Your task to perform on an android device: Search for "dell xps" on newegg.com, select the first entry, and add it to the cart. Image 0: 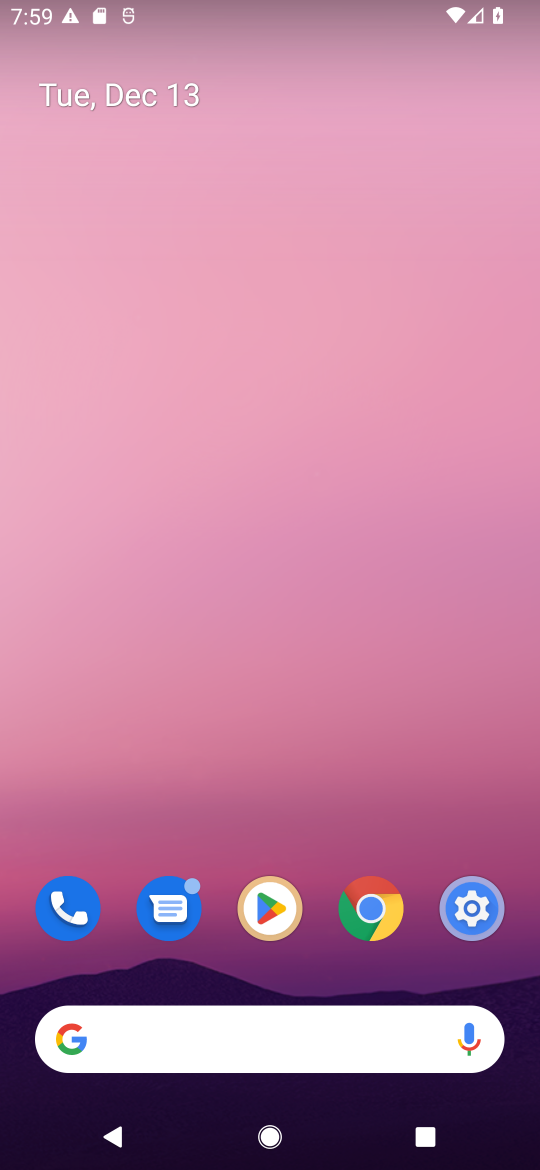
Step 0: press home button
Your task to perform on an android device: Search for "dell xps" on newegg.com, select the first entry, and add it to the cart. Image 1: 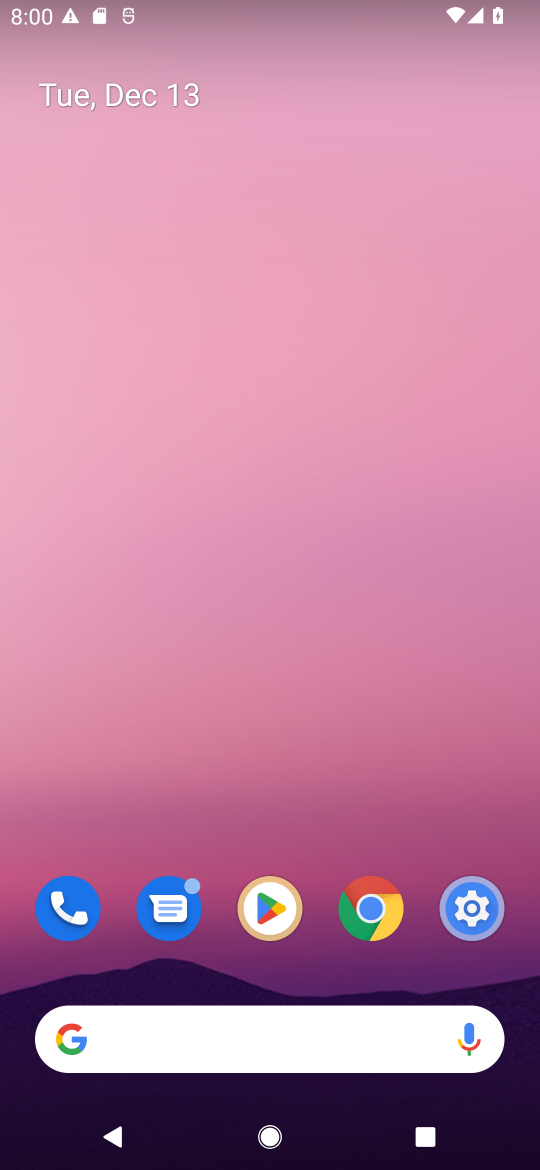
Step 1: click (97, 1045)
Your task to perform on an android device: Search for "dell xps" on newegg.com, select the first entry, and add it to the cart. Image 2: 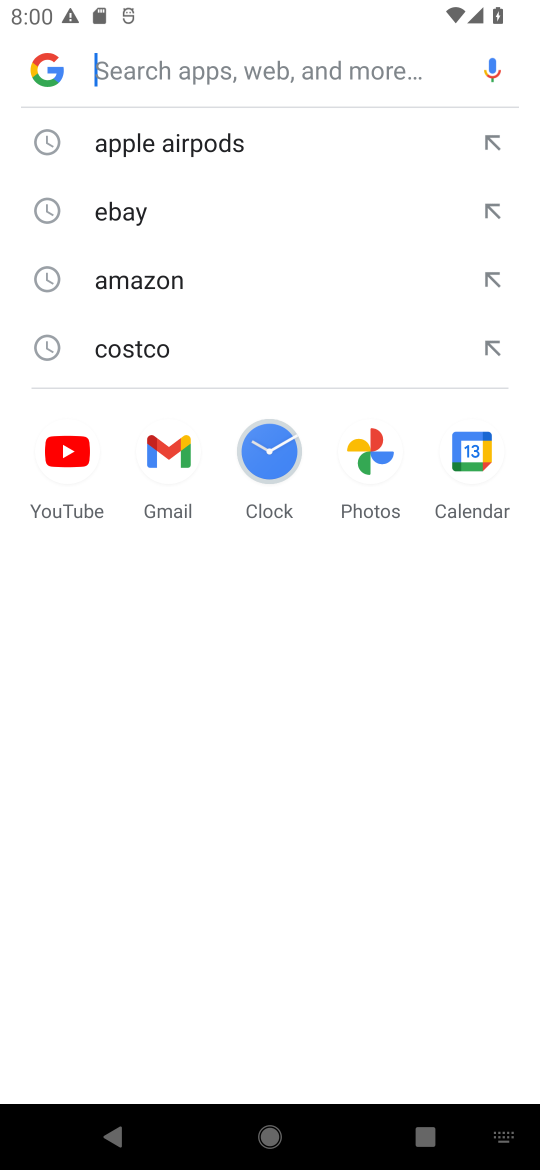
Step 2: type "newegg.com"
Your task to perform on an android device: Search for "dell xps" on newegg.com, select the first entry, and add it to the cart. Image 3: 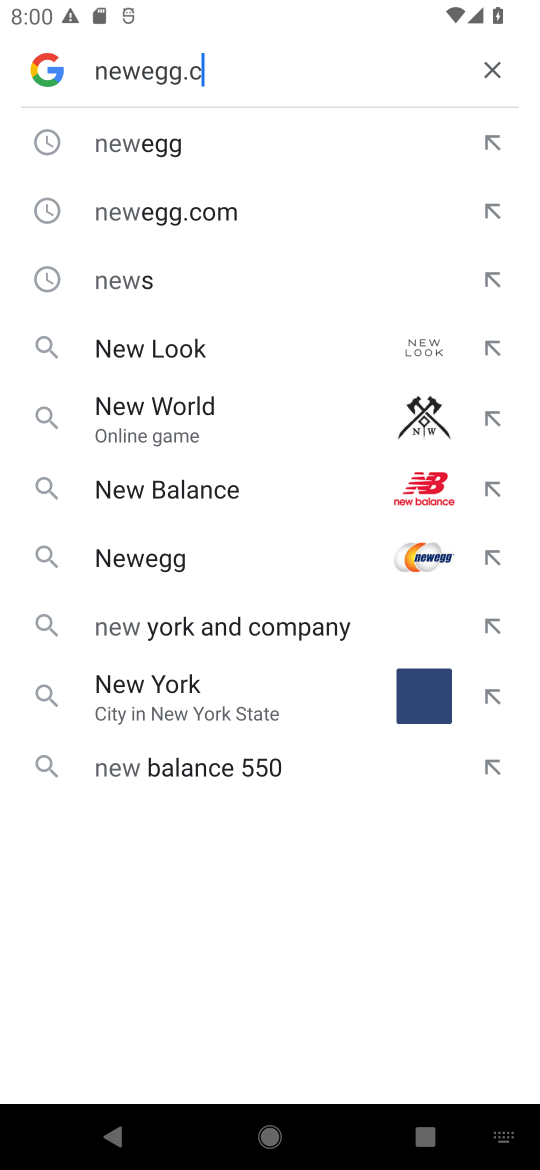
Step 3: press enter
Your task to perform on an android device: Search for "dell xps" on newegg.com, select the first entry, and add it to the cart. Image 4: 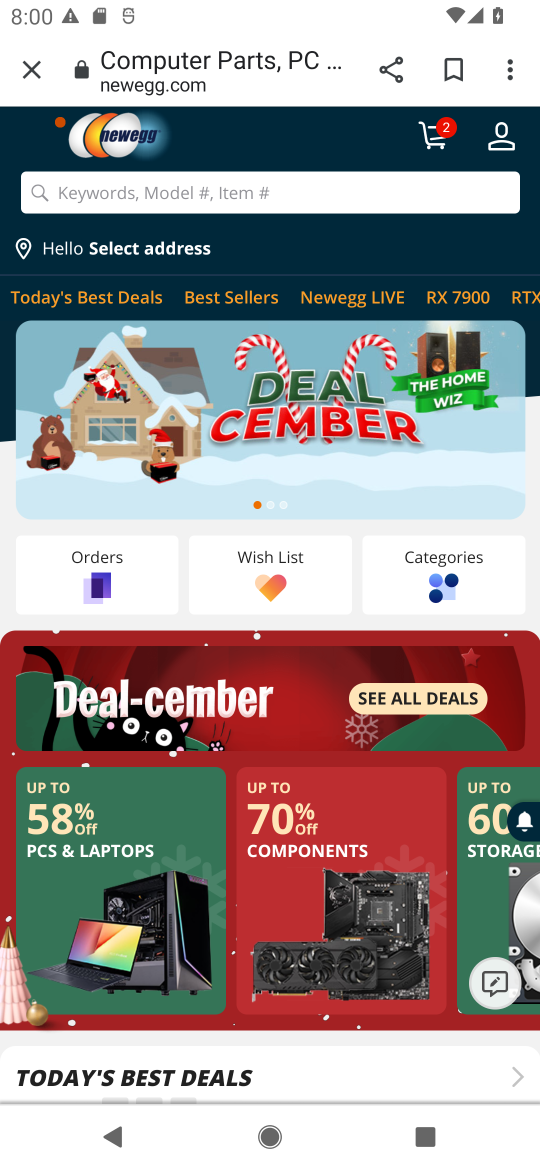
Step 4: click (156, 188)
Your task to perform on an android device: Search for "dell xps" on newegg.com, select the first entry, and add it to the cart. Image 5: 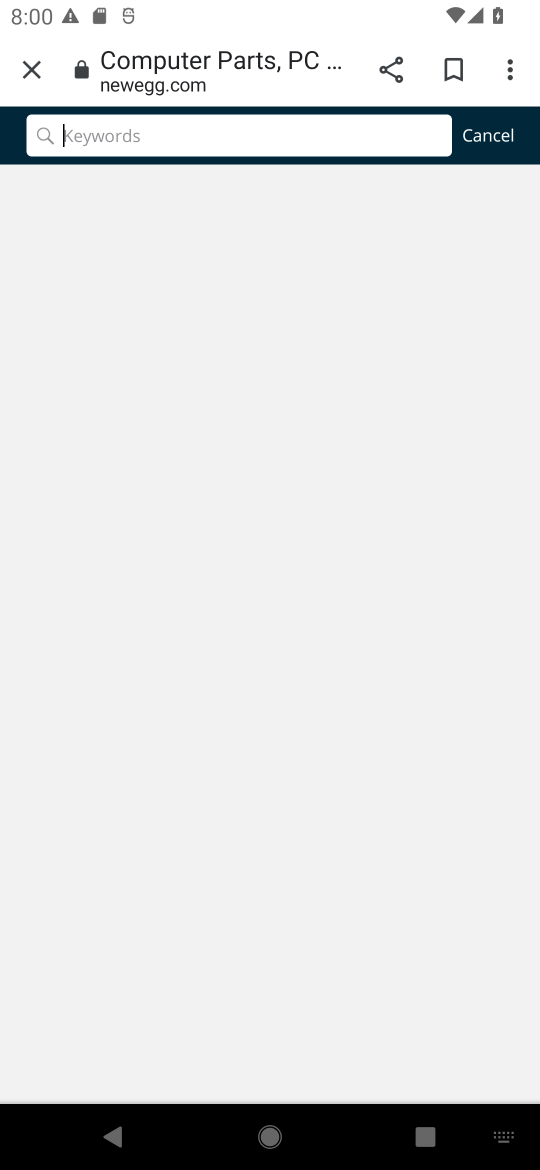
Step 5: type "dell xps"
Your task to perform on an android device: Search for "dell xps" on newegg.com, select the first entry, and add it to the cart. Image 6: 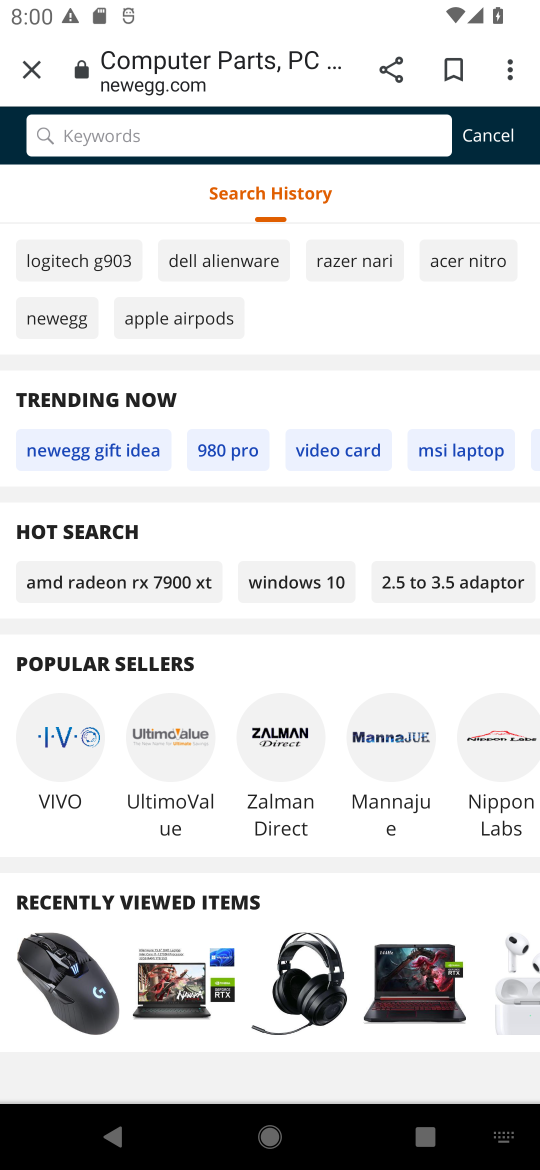
Step 6: press enter
Your task to perform on an android device: Search for "dell xps" on newegg.com, select the first entry, and add it to the cart. Image 7: 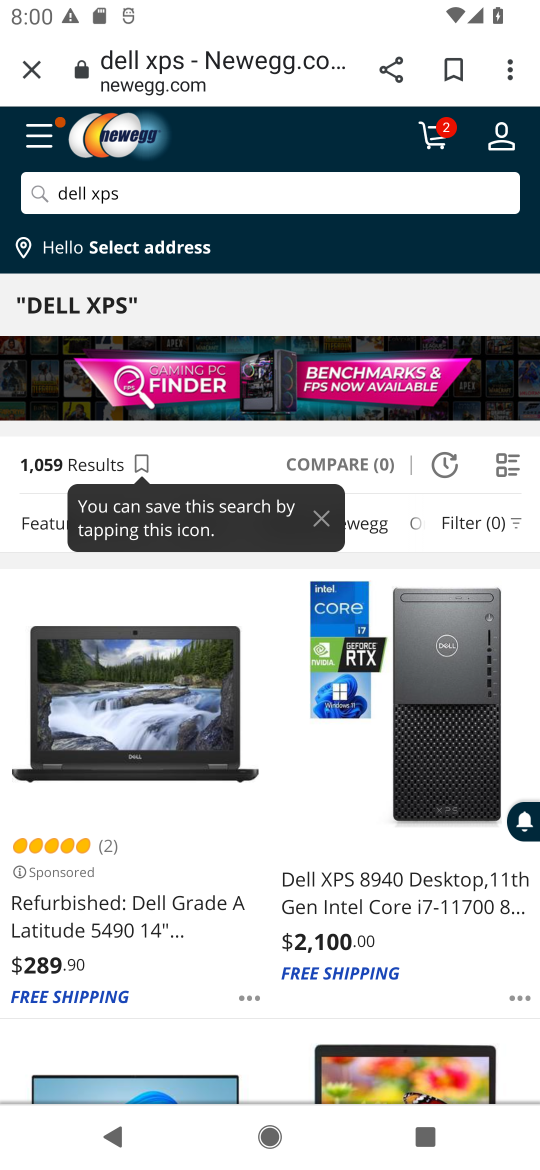
Step 7: click (352, 893)
Your task to perform on an android device: Search for "dell xps" on newegg.com, select the first entry, and add it to the cart. Image 8: 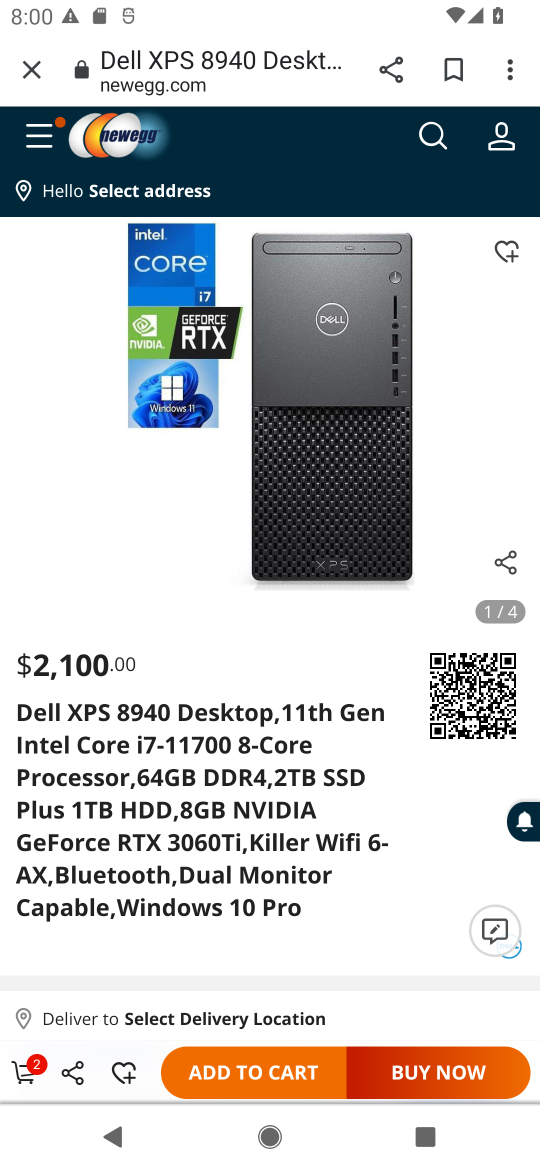
Step 8: click (237, 1076)
Your task to perform on an android device: Search for "dell xps" on newegg.com, select the first entry, and add it to the cart. Image 9: 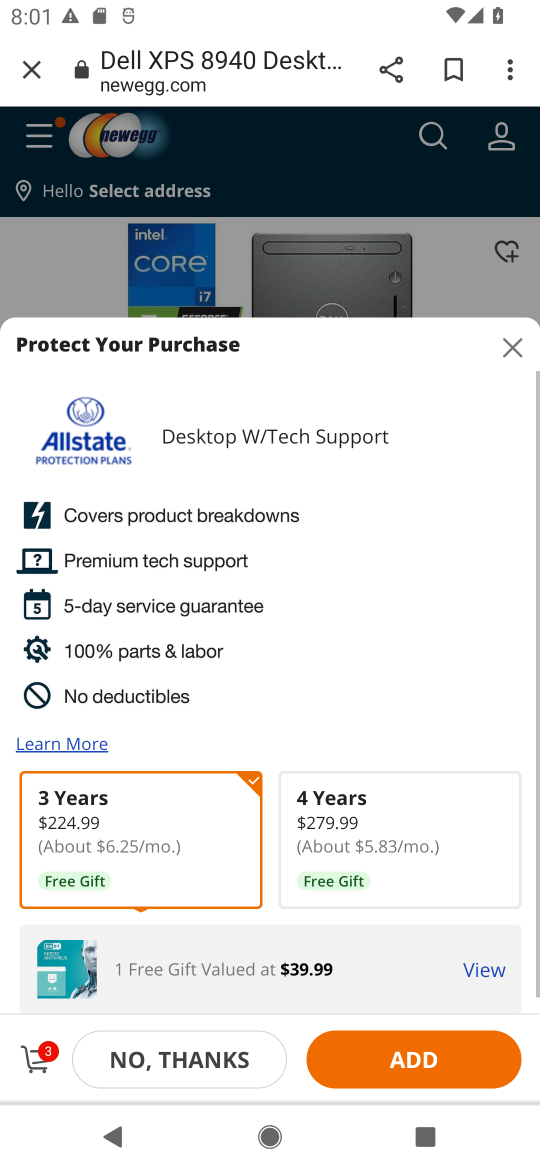
Step 9: task complete